Your task to perform on an android device: turn on notifications settings in the gmail app Image 0: 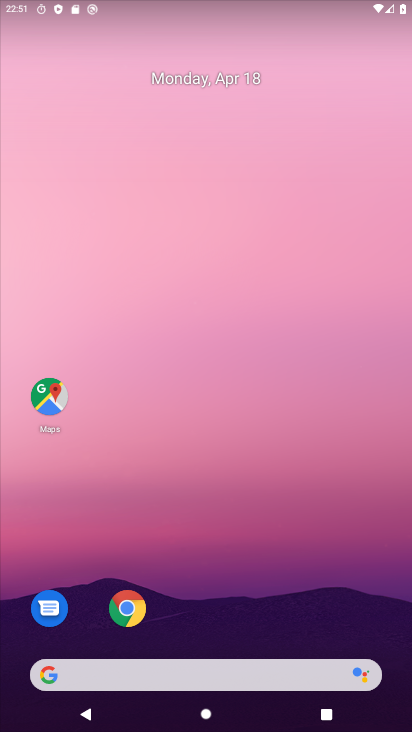
Step 0: drag from (226, 584) to (238, 160)
Your task to perform on an android device: turn on notifications settings in the gmail app Image 1: 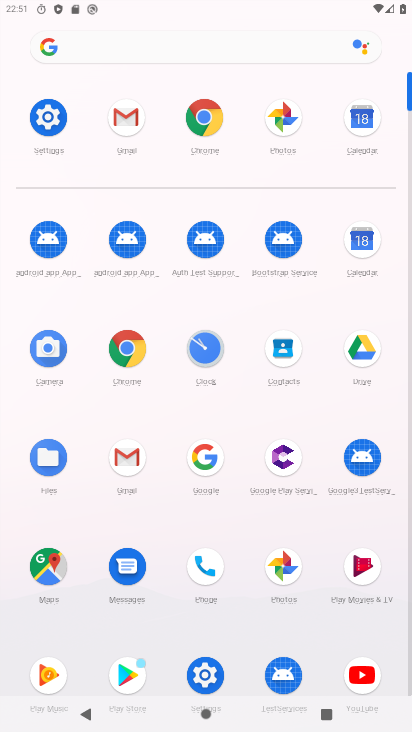
Step 1: click (120, 121)
Your task to perform on an android device: turn on notifications settings in the gmail app Image 2: 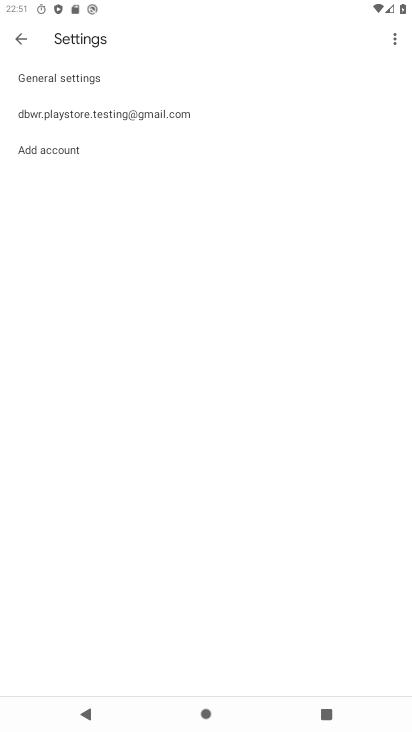
Step 2: click (128, 110)
Your task to perform on an android device: turn on notifications settings in the gmail app Image 3: 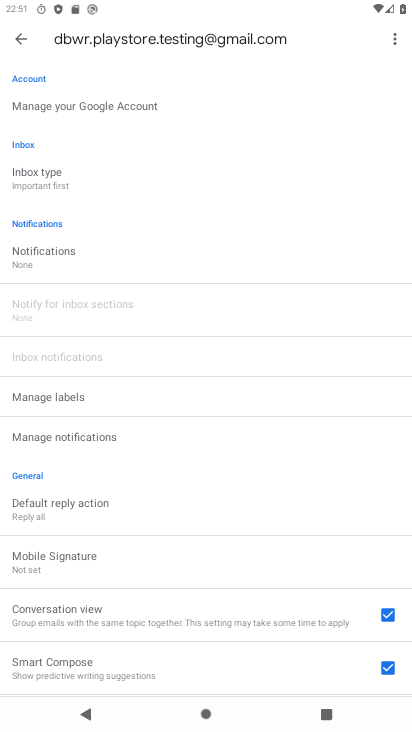
Step 3: click (52, 269)
Your task to perform on an android device: turn on notifications settings in the gmail app Image 4: 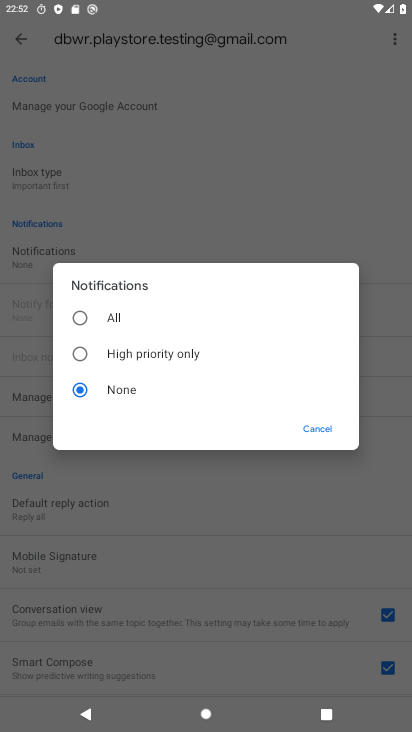
Step 4: click (79, 317)
Your task to perform on an android device: turn on notifications settings in the gmail app Image 5: 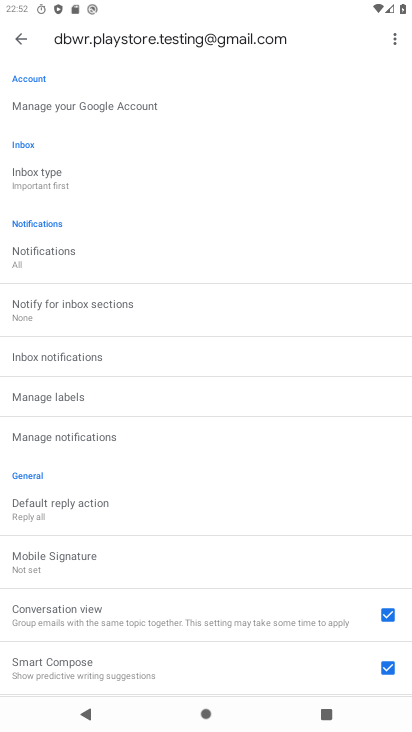
Step 5: task complete